Your task to perform on an android device: Turn on the flashlight Image 0: 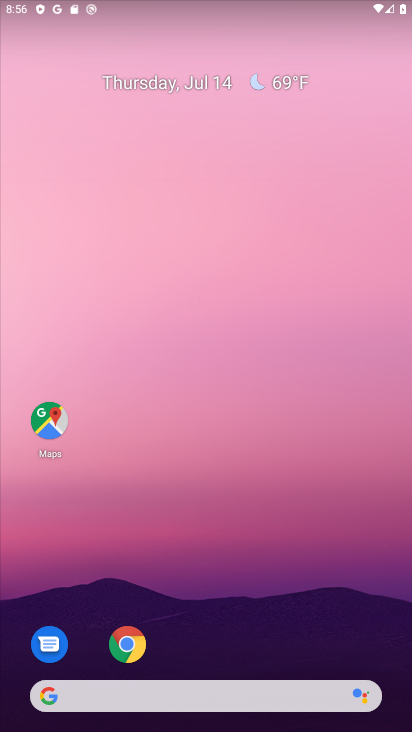
Step 0: drag from (188, 660) to (190, 132)
Your task to perform on an android device: Turn on the flashlight Image 1: 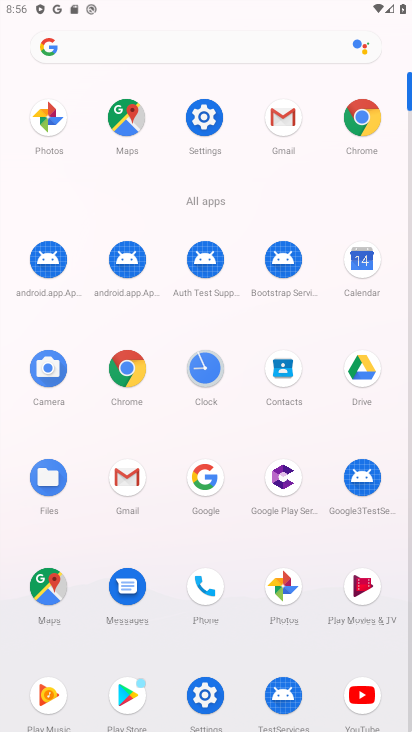
Step 1: click (210, 125)
Your task to perform on an android device: Turn on the flashlight Image 2: 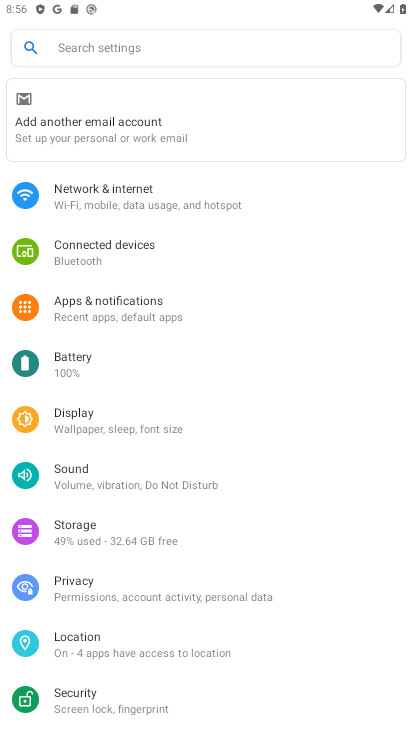
Step 2: task complete